Your task to perform on an android device: toggle location history Image 0: 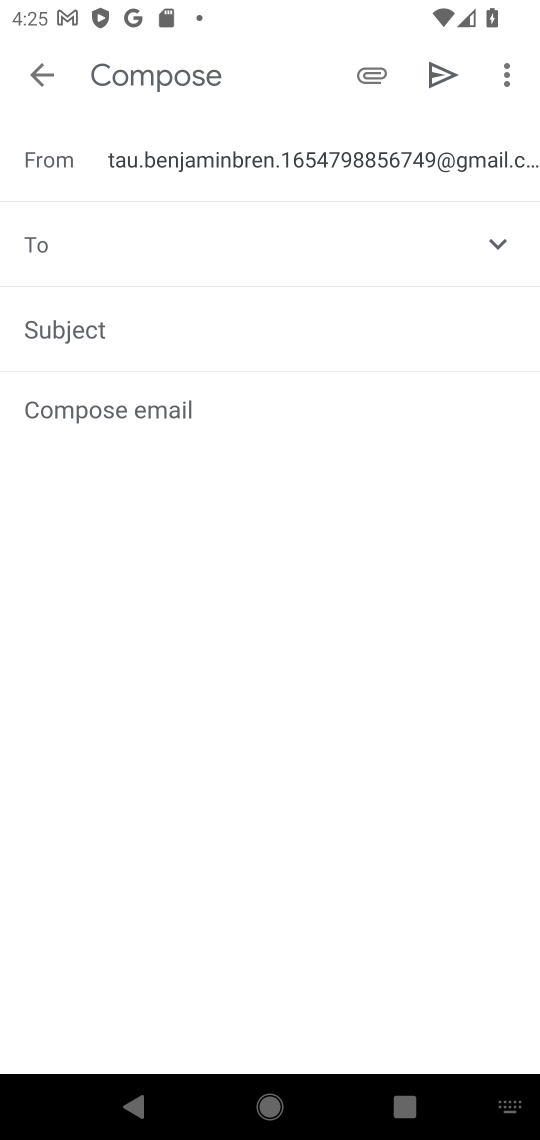
Step 0: press home button
Your task to perform on an android device: toggle location history Image 1: 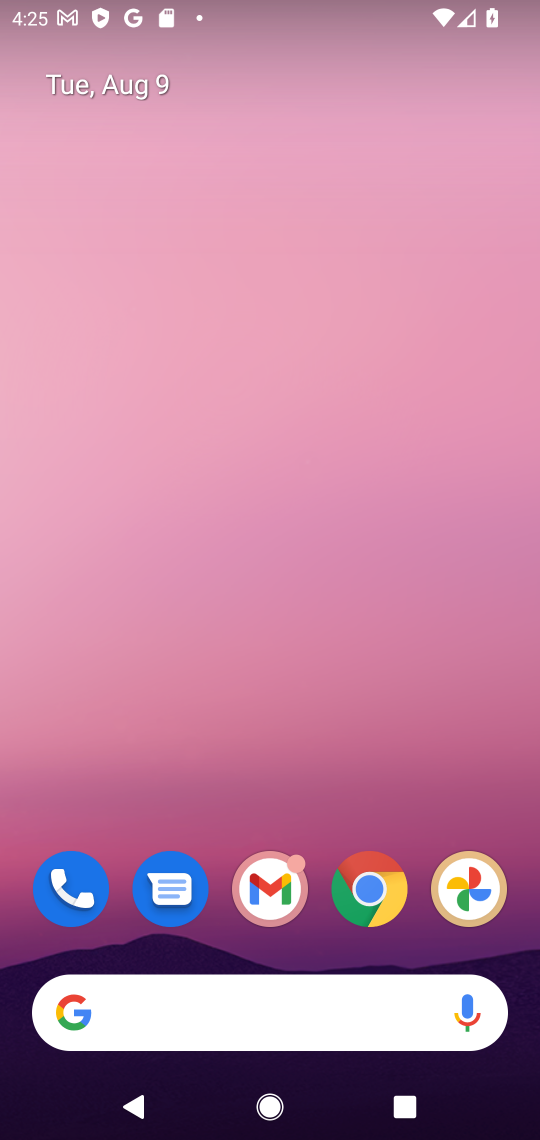
Step 1: drag from (265, 783) to (370, 0)
Your task to perform on an android device: toggle location history Image 2: 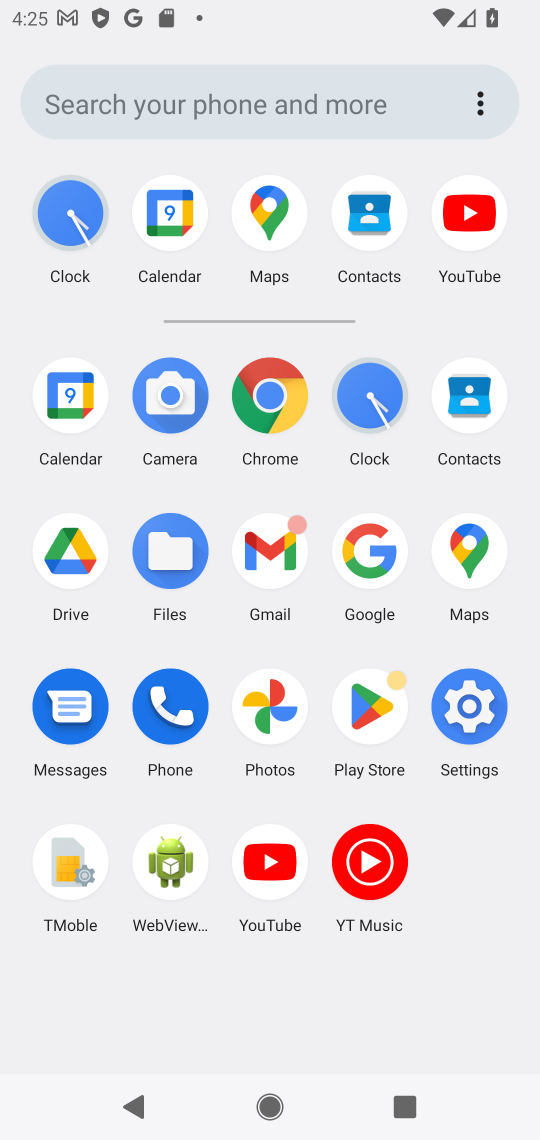
Step 2: click (470, 710)
Your task to perform on an android device: toggle location history Image 3: 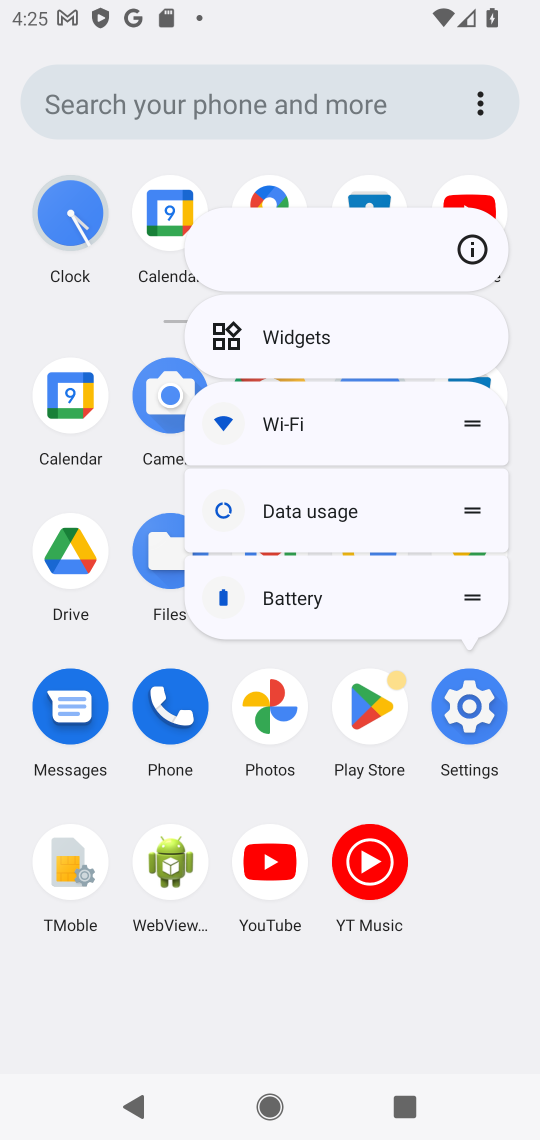
Step 3: click (470, 710)
Your task to perform on an android device: toggle location history Image 4: 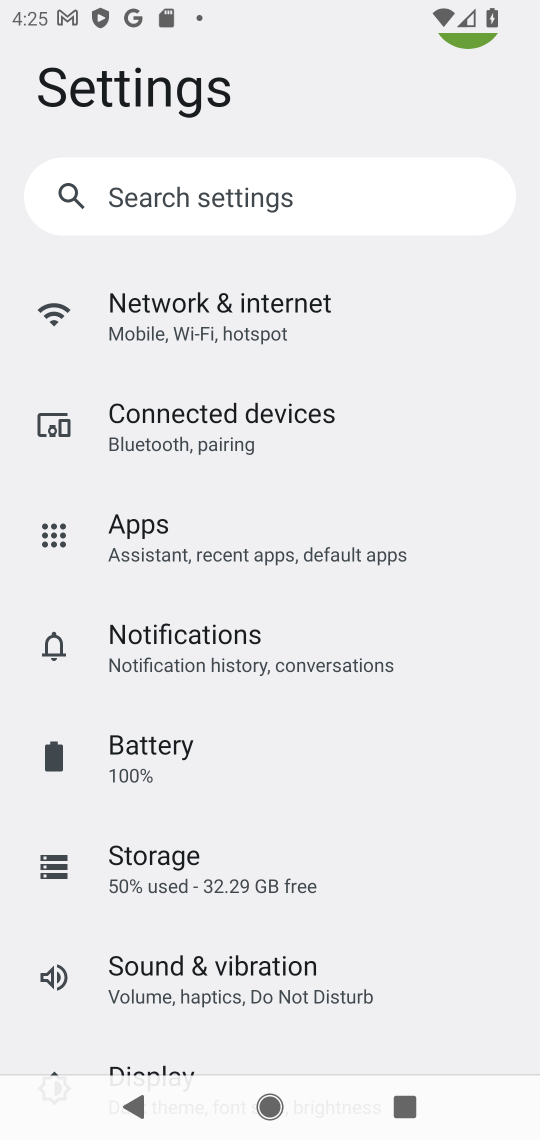
Step 4: drag from (308, 849) to (365, 203)
Your task to perform on an android device: toggle location history Image 5: 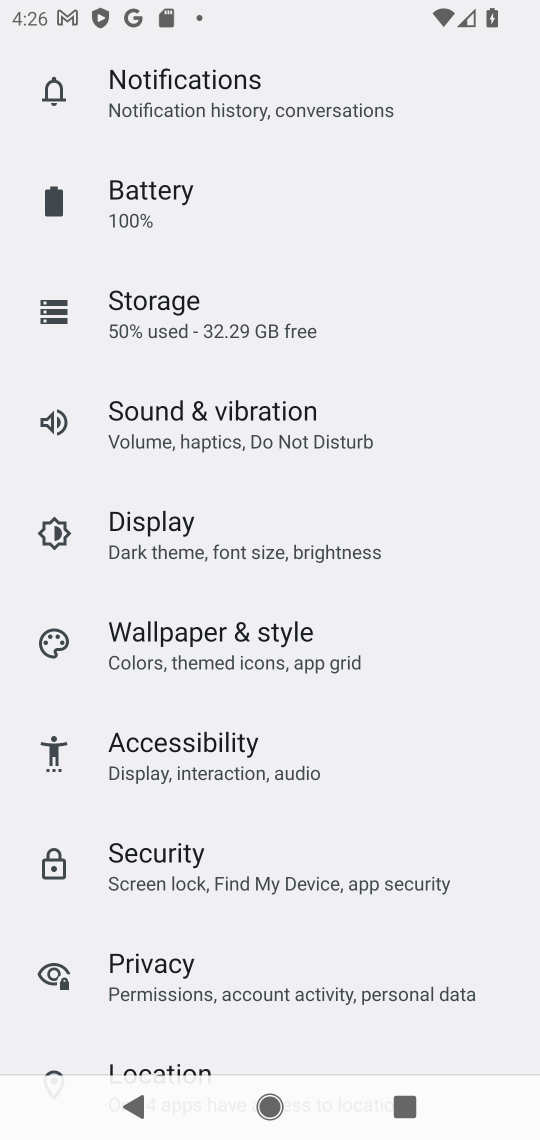
Step 5: drag from (412, 570) to (430, 327)
Your task to perform on an android device: toggle location history Image 6: 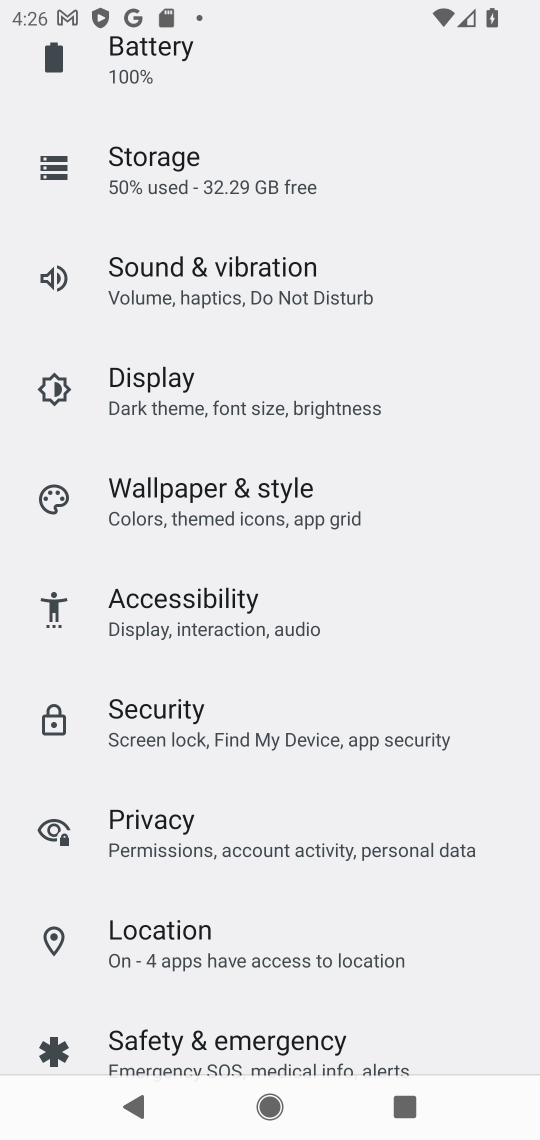
Step 6: click (254, 935)
Your task to perform on an android device: toggle location history Image 7: 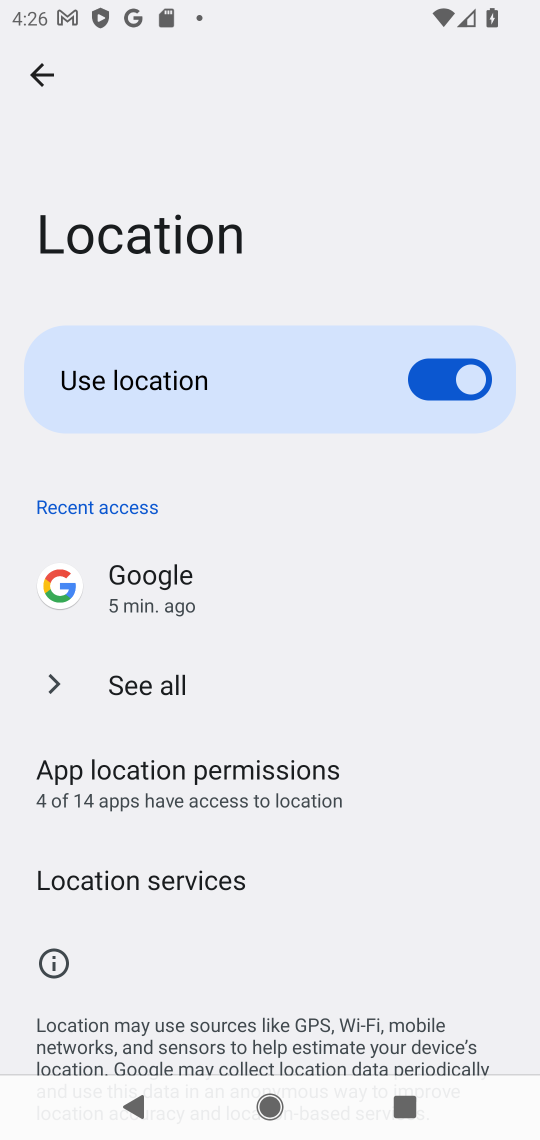
Step 7: click (230, 878)
Your task to perform on an android device: toggle location history Image 8: 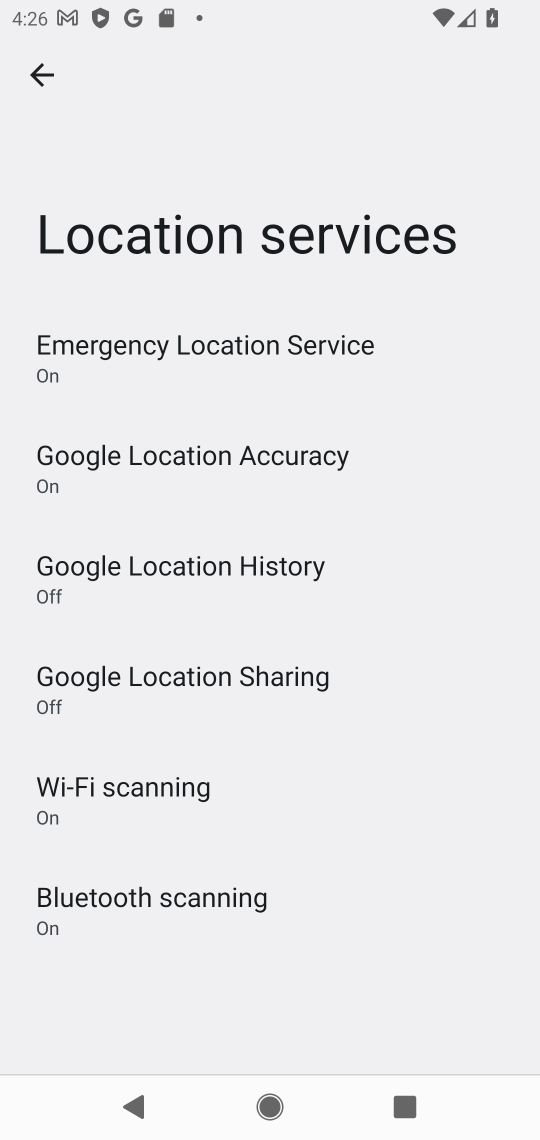
Step 8: click (286, 581)
Your task to perform on an android device: toggle location history Image 9: 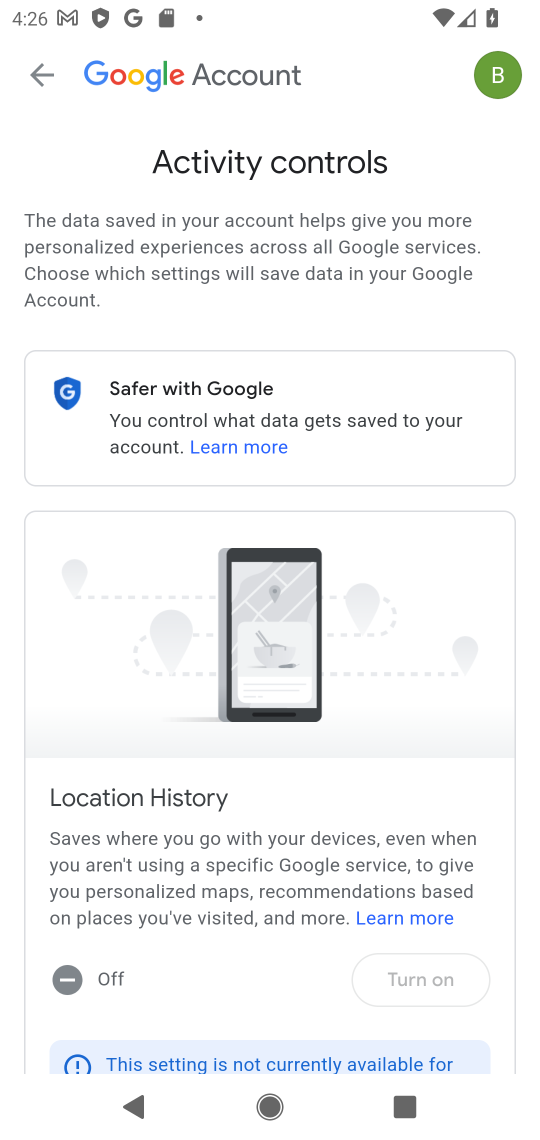
Step 9: drag from (328, 811) to (347, 445)
Your task to perform on an android device: toggle location history Image 10: 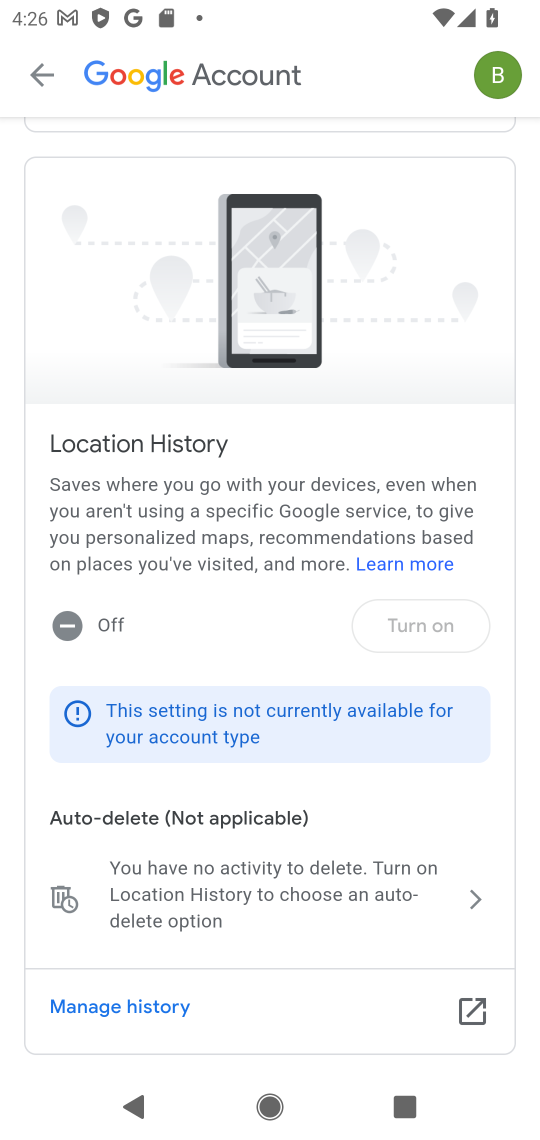
Step 10: click (448, 611)
Your task to perform on an android device: toggle location history Image 11: 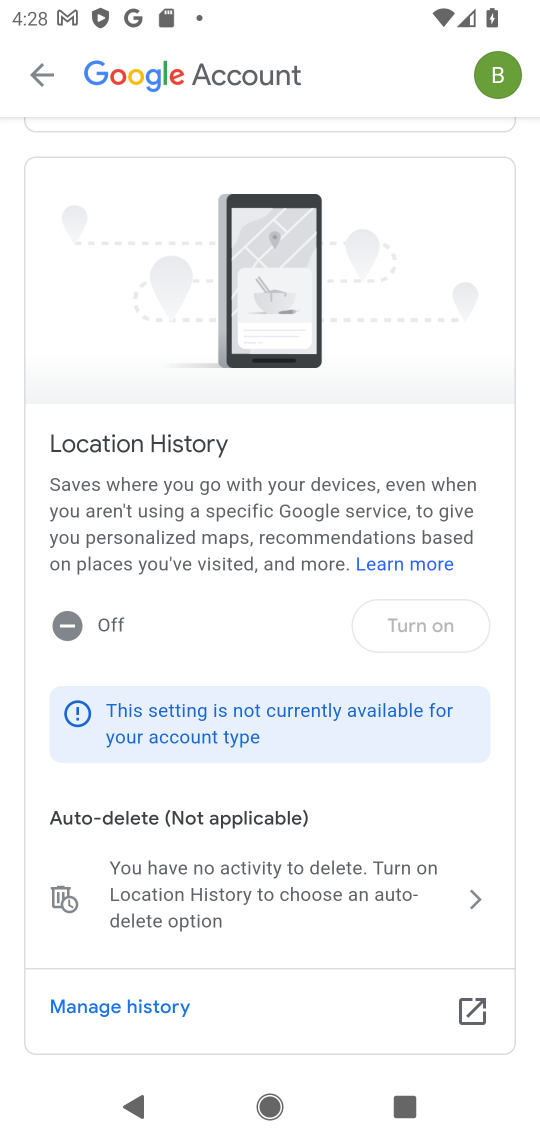
Step 11: task complete